Your task to perform on an android device: Toggle the flashlight Image 0: 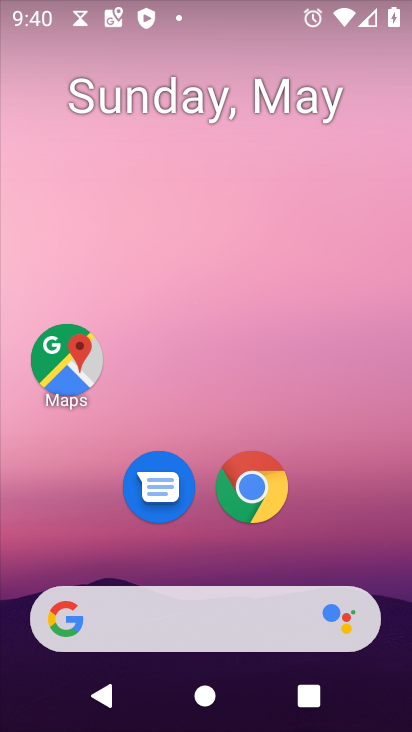
Step 0: drag from (384, 443) to (411, 186)
Your task to perform on an android device: Toggle the flashlight Image 1: 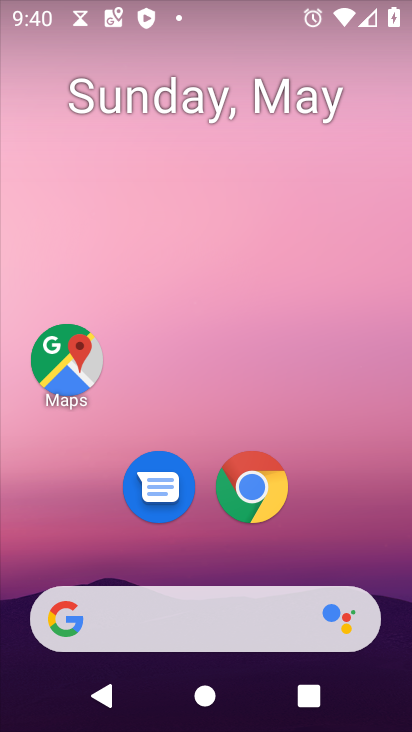
Step 1: drag from (352, 521) to (402, 41)
Your task to perform on an android device: Toggle the flashlight Image 2: 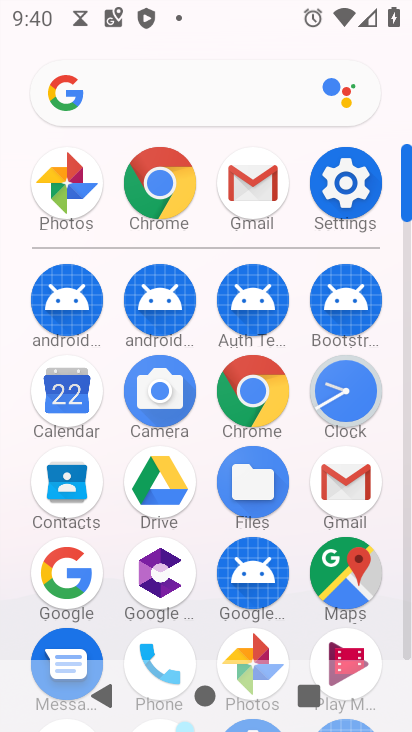
Step 2: click (350, 203)
Your task to perform on an android device: Toggle the flashlight Image 3: 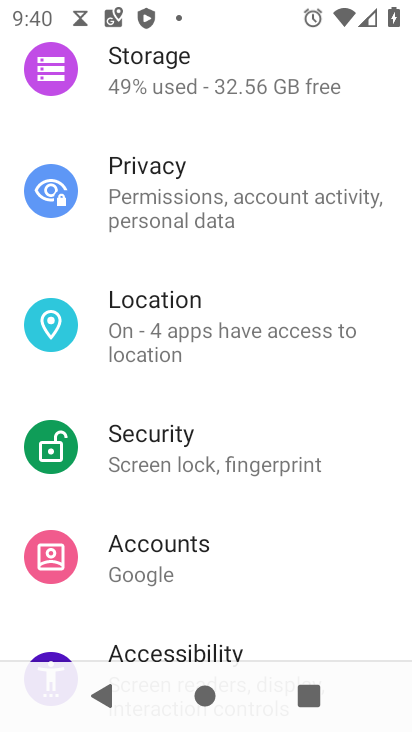
Step 3: task complete